Your task to perform on an android device: Open accessibility settings Image 0: 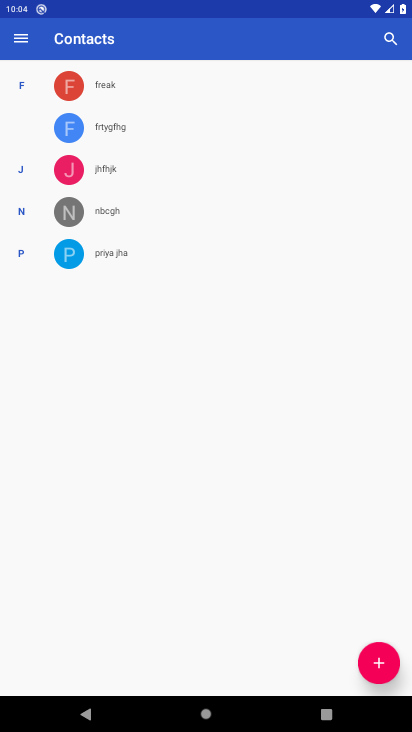
Step 0: press home button
Your task to perform on an android device: Open accessibility settings Image 1: 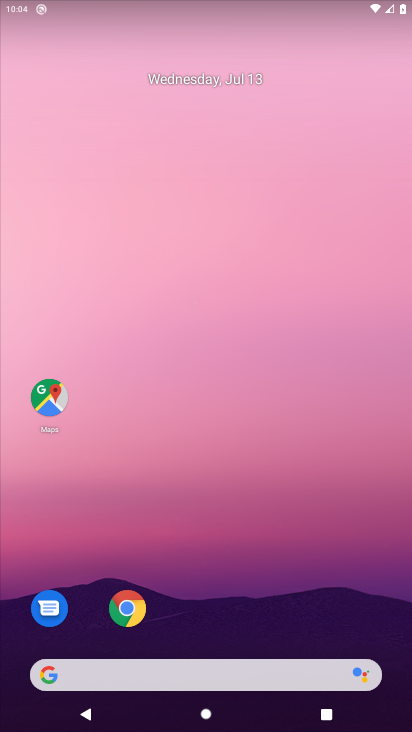
Step 1: drag from (63, 590) to (272, 8)
Your task to perform on an android device: Open accessibility settings Image 2: 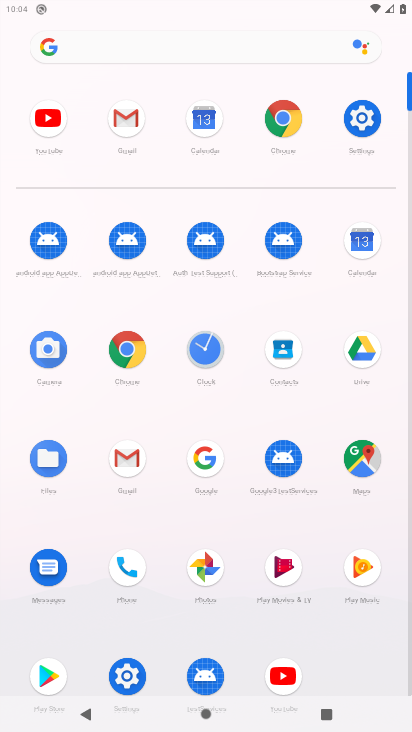
Step 2: click (127, 669)
Your task to perform on an android device: Open accessibility settings Image 3: 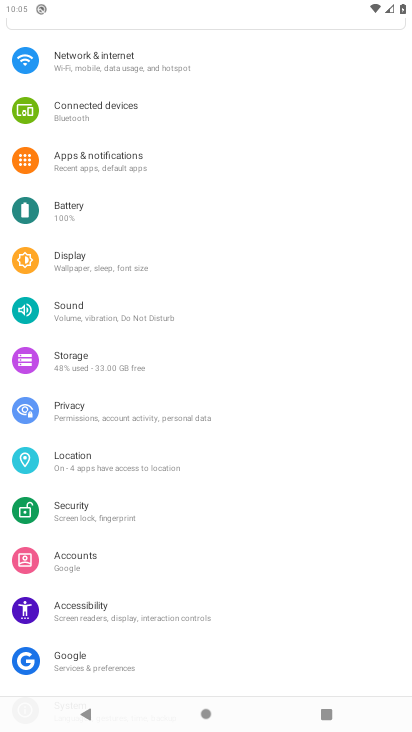
Step 3: click (74, 606)
Your task to perform on an android device: Open accessibility settings Image 4: 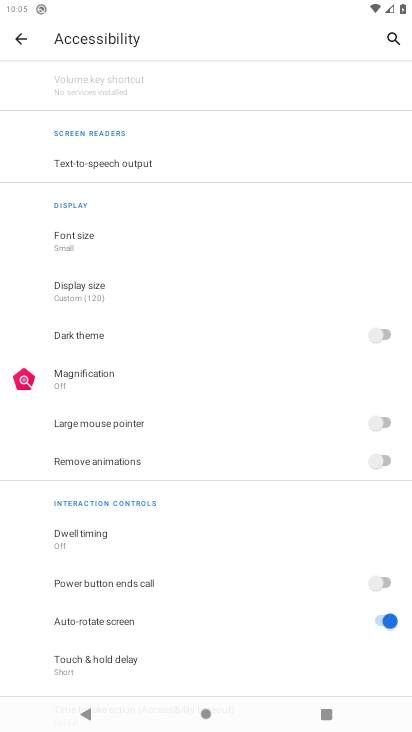
Step 4: task complete